Your task to perform on an android device: toggle location history Image 0: 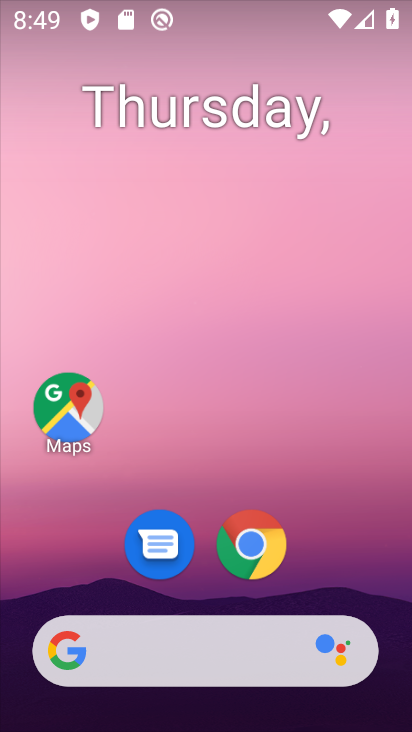
Step 0: drag from (228, 699) to (190, 7)
Your task to perform on an android device: toggle location history Image 1: 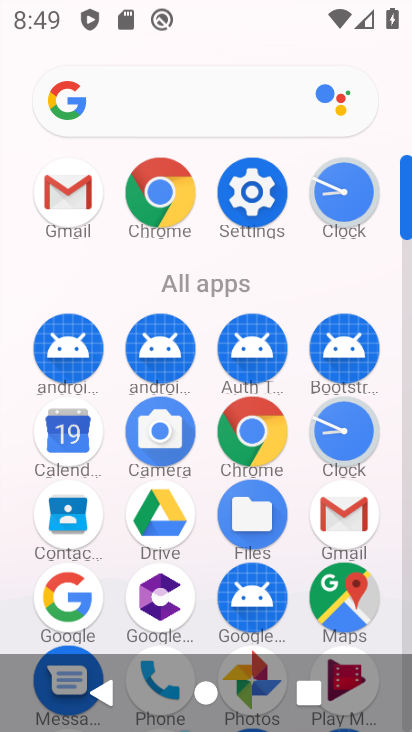
Step 1: click (243, 187)
Your task to perform on an android device: toggle location history Image 2: 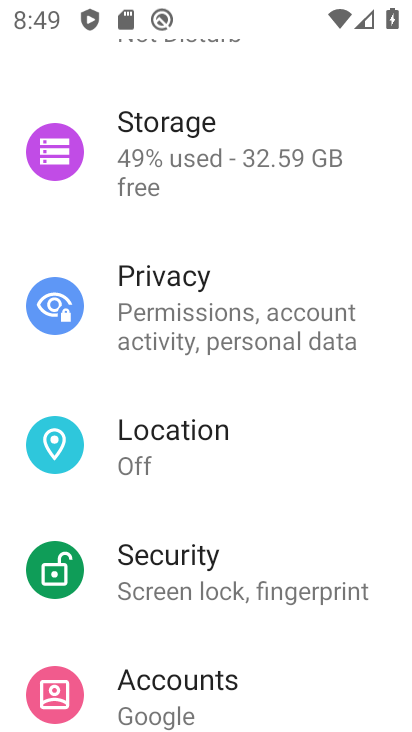
Step 2: click (167, 427)
Your task to perform on an android device: toggle location history Image 3: 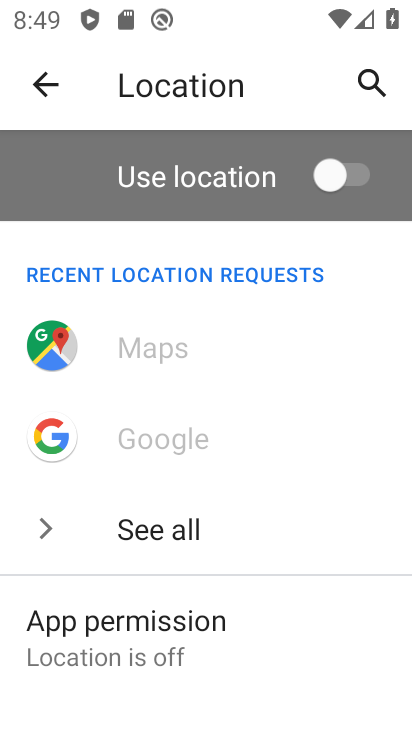
Step 3: task complete